Your task to perform on an android device: turn vacation reply on in the gmail app Image 0: 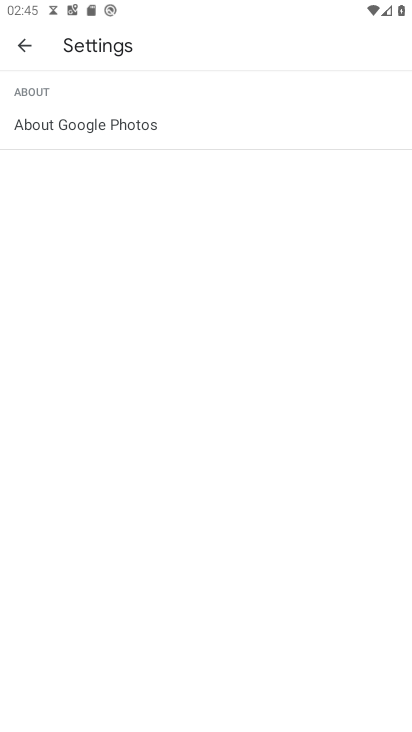
Step 0: press home button
Your task to perform on an android device: turn vacation reply on in the gmail app Image 1: 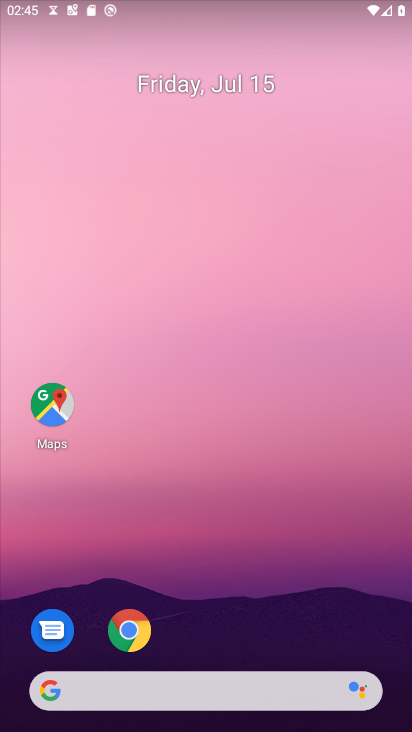
Step 1: drag from (309, 583) to (289, 0)
Your task to perform on an android device: turn vacation reply on in the gmail app Image 2: 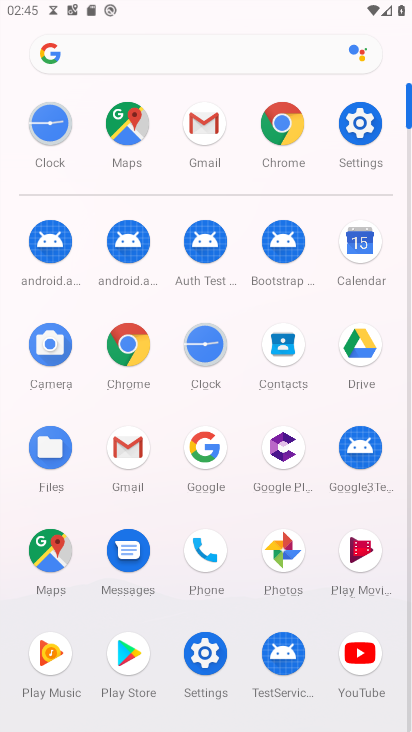
Step 2: click (201, 121)
Your task to perform on an android device: turn vacation reply on in the gmail app Image 3: 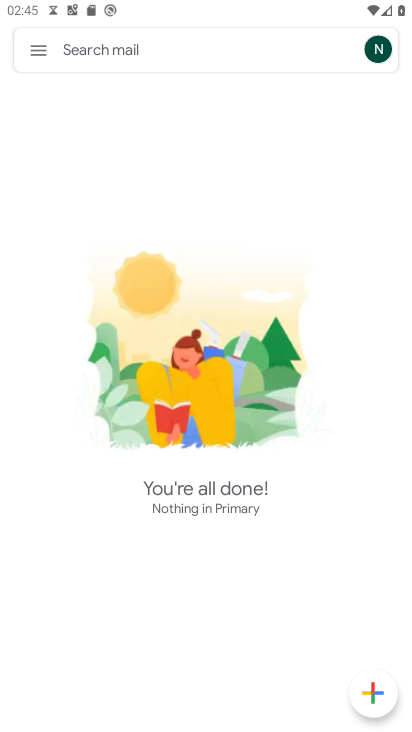
Step 3: click (46, 49)
Your task to perform on an android device: turn vacation reply on in the gmail app Image 4: 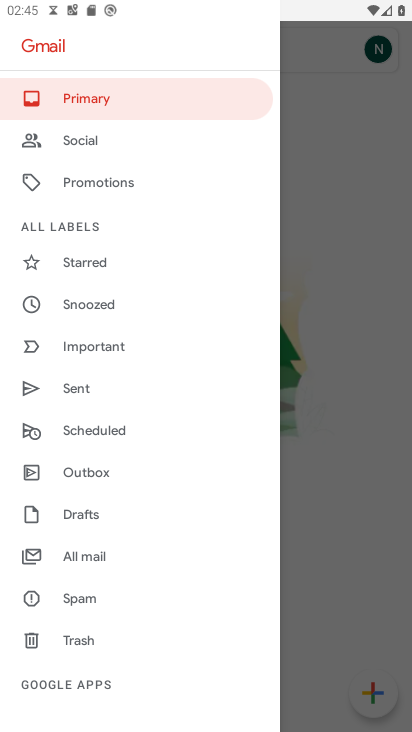
Step 4: drag from (119, 538) to (122, 135)
Your task to perform on an android device: turn vacation reply on in the gmail app Image 5: 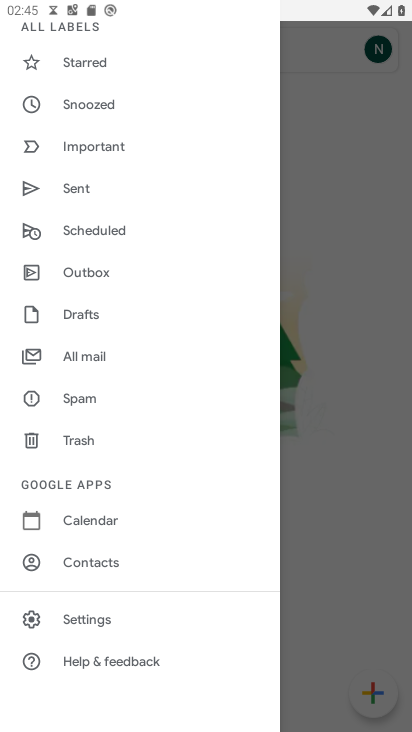
Step 5: click (91, 606)
Your task to perform on an android device: turn vacation reply on in the gmail app Image 6: 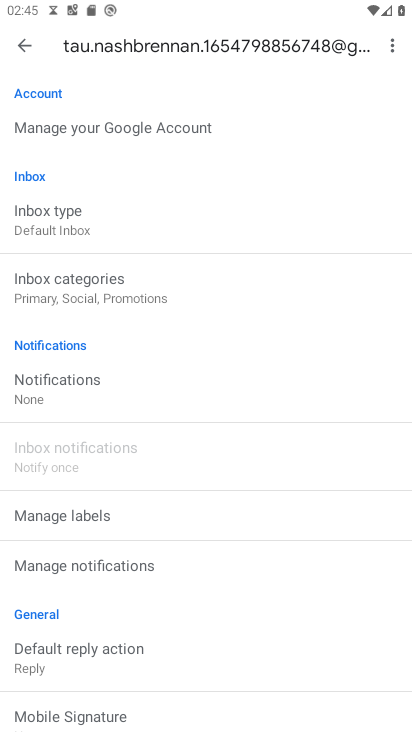
Step 6: drag from (111, 623) to (187, 174)
Your task to perform on an android device: turn vacation reply on in the gmail app Image 7: 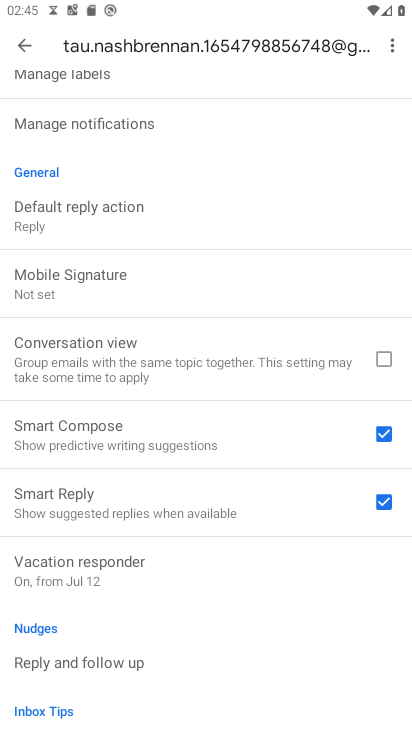
Step 7: click (99, 582)
Your task to perform on an android device: turn vacation reply on in the gmail app Image 8: 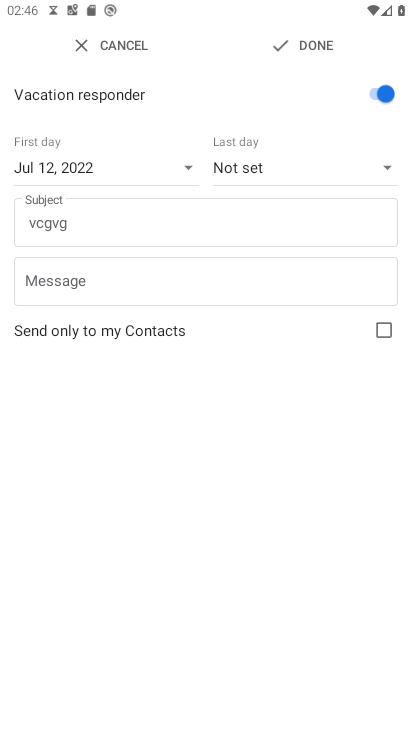
Step 8: task complete